Your task to perform on an android device: Open my contact list Image 0: 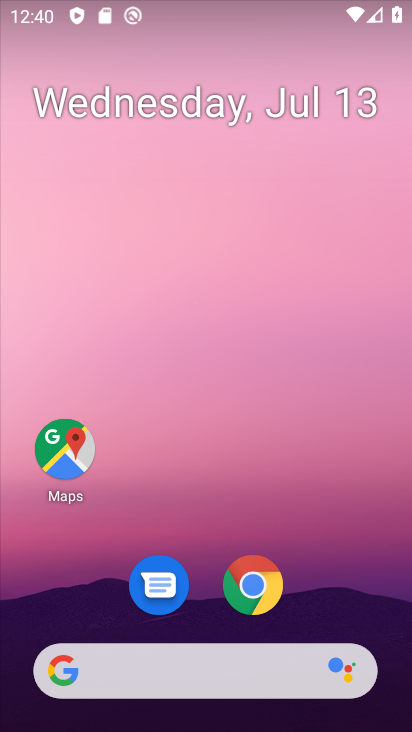
Step 0: drag from (328, 556) to (260, 67)
Your task to perform on an android device: Open my contact list Image 1: 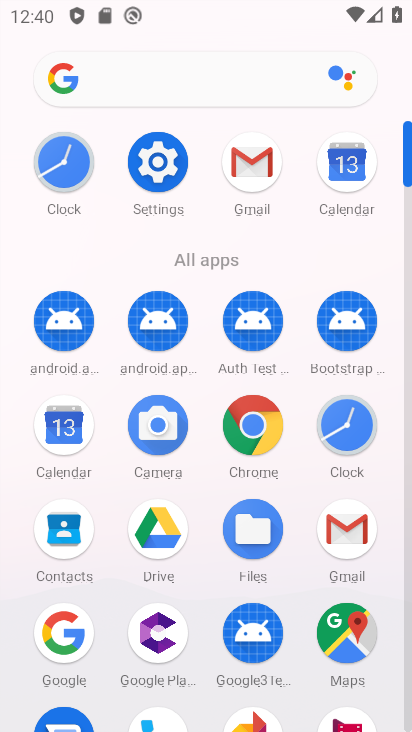
Step 1: click (65, 533)
Your task to perform on an android device: Open my contact list Image 2: 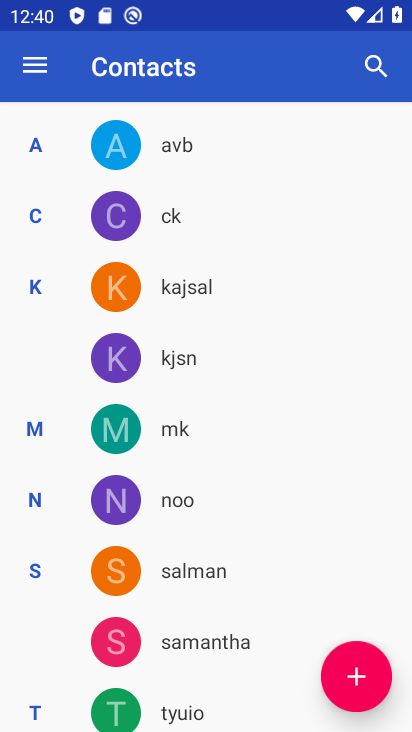
Step 2: task complete